Your task to perform on an android device: turn on translation in the chrome app Image 0: 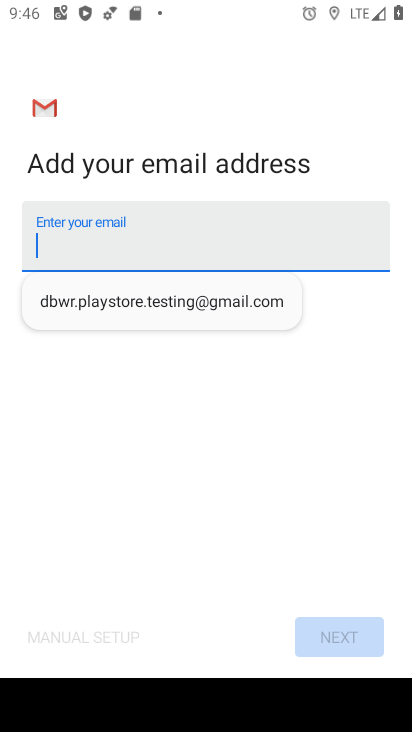
Step 0: press home button
Your task to perform on an android device: turn on translation in the chrome app Image 1: 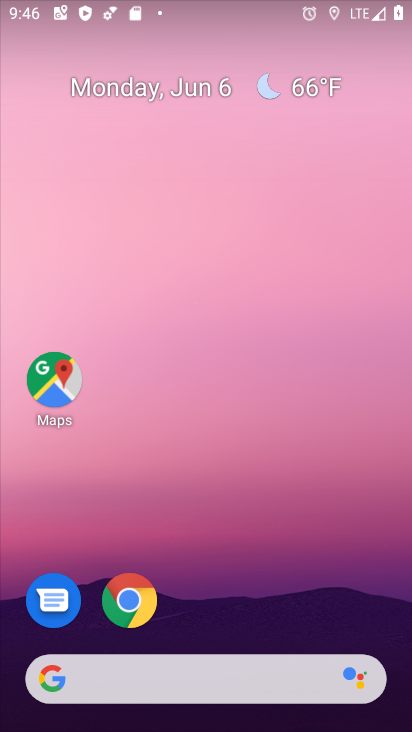
Step 1: click (134, 598)
Your task to perform on an android device: turn on translation in the chrome app Image 2: 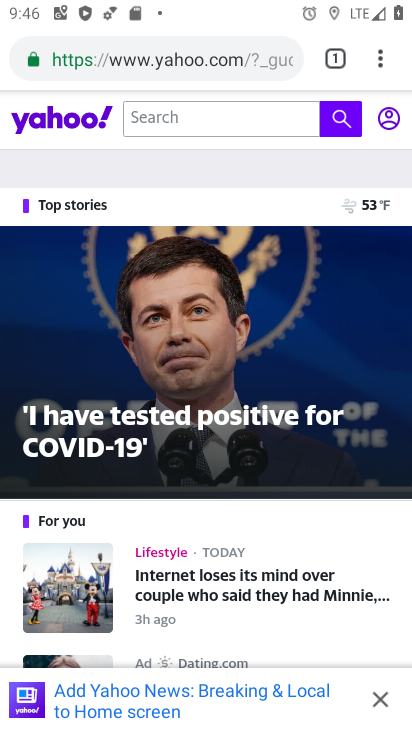
Step 2: click (376, 58)
Your task to perform on an android device: turn on translation in the chrome app Image 3: 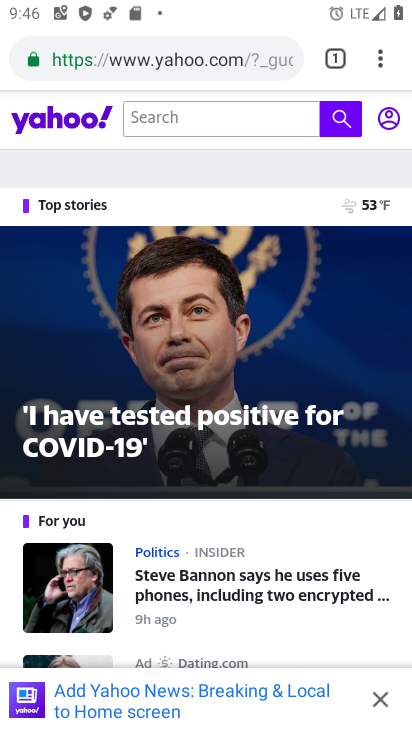
Step 3: click (381, 45)
Your task to perform on an android device: turn on translation in the chrome app Image 4: 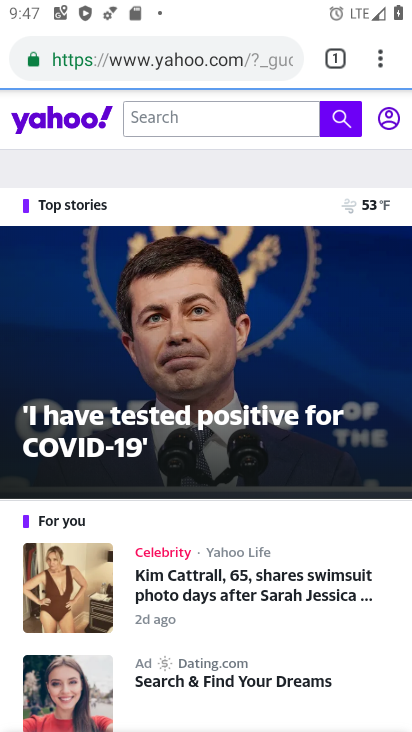
Step 4: click (376, 72)
Your task to perform on an android device: turn on translation in the chrome app Image 5: 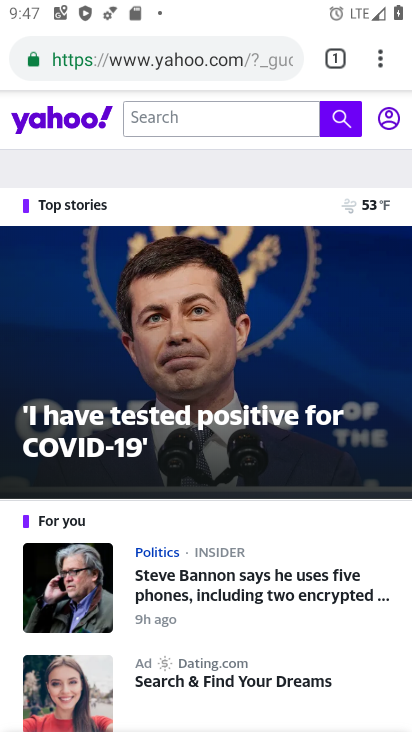
Step 5: click (380, 64)
Your task to perform on an android device: turn on translation in the chrome app Image 6: 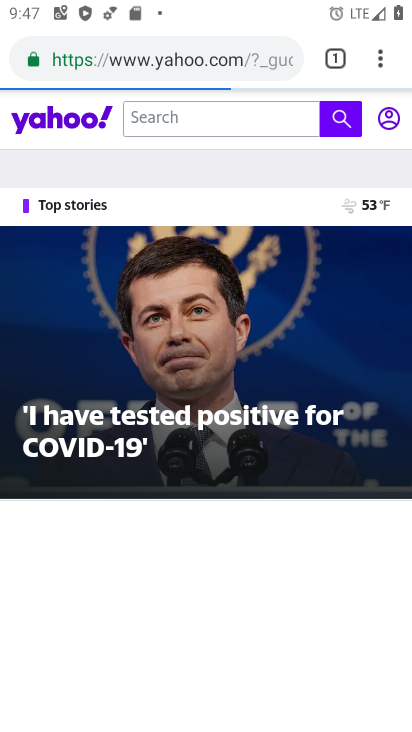
Step 6: click (380, 64)
Your task to perform on an android device: turn on translation in the chrome app Image 7: 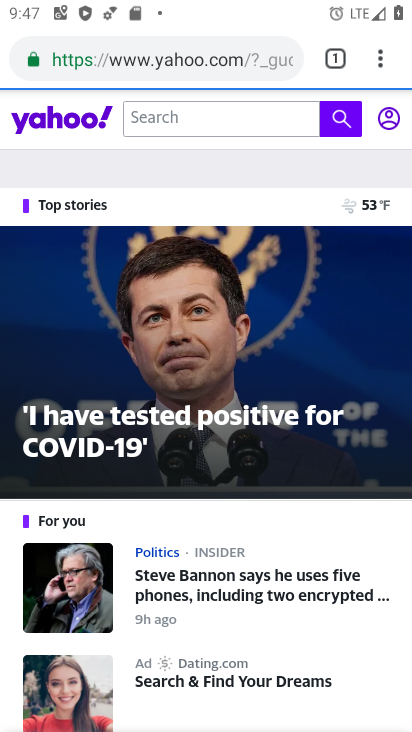
Step 7: click (380, 50)
Your task to perform on an android device: turn on translation in the chrome app Image 8: 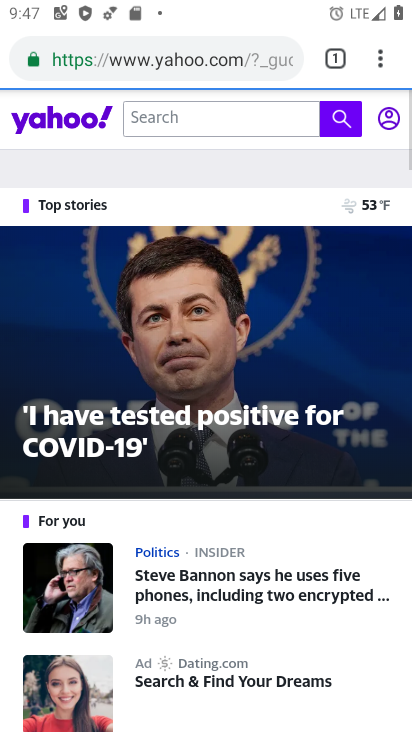
Step 8: click (383, 67)
Your task to perform on an android device: turn on translation in the chrome app Image 9: 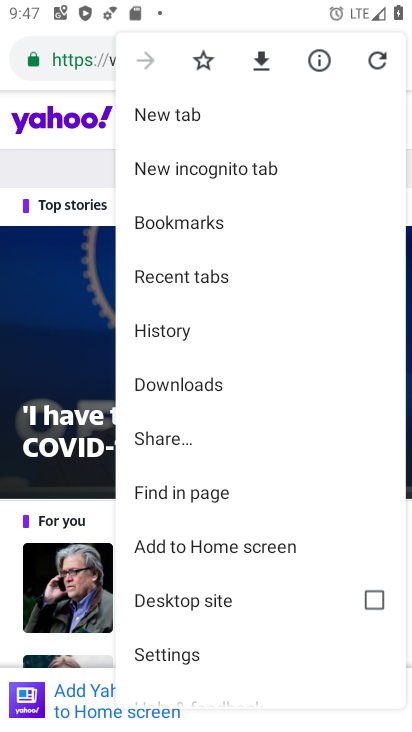
Step 9: click (213, 649)
Your task to perform on an android device: turn on translation in the chrome app Image 10: 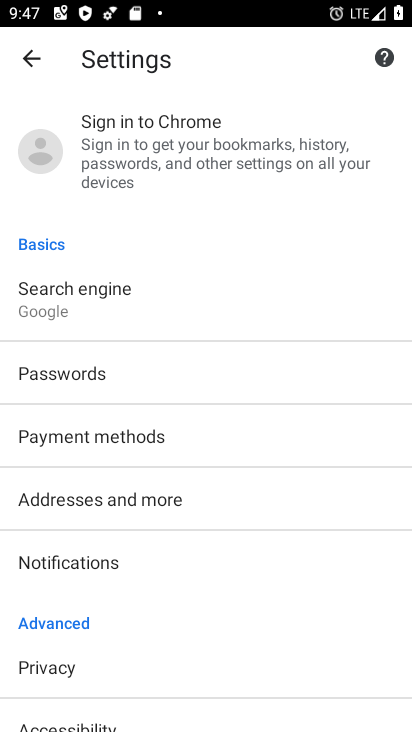
Step 10: drag from (107, 464) to (290, 185)
Your task to perform on an android device: turn on translation in the chrome app Image 11: 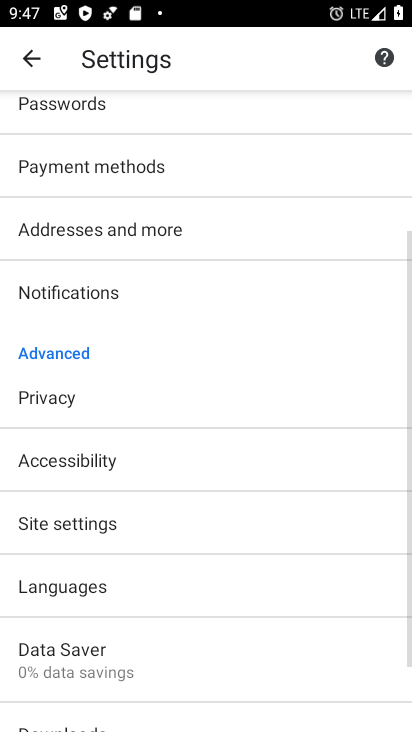
Step 11: click (83, 577)
Your task to perform on an android device: turn on translation in the chrome app Image 12: 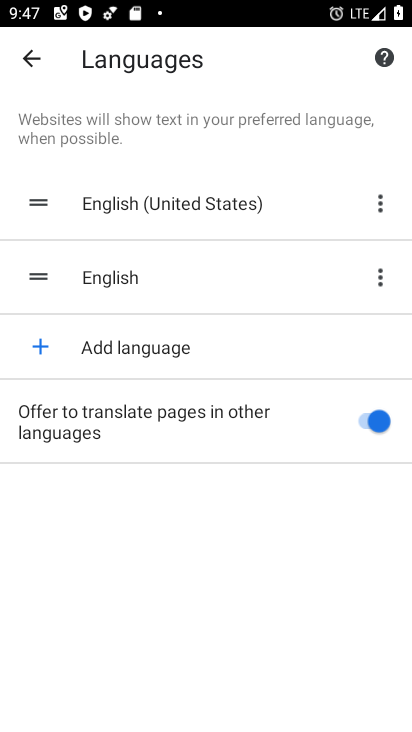
Step 12: task complete